Your task to perform on an android device: empty trash in google photos Image 0: 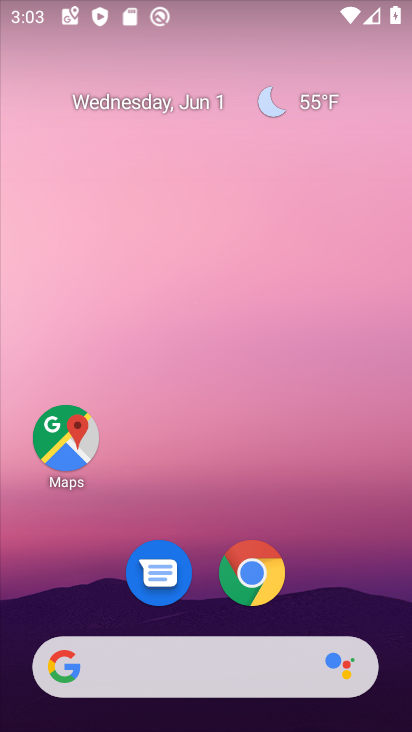
Step 0: drag from (0, 0) to (127, 0)
Your task to perform on an android device: empty trash in google photos Image 1: 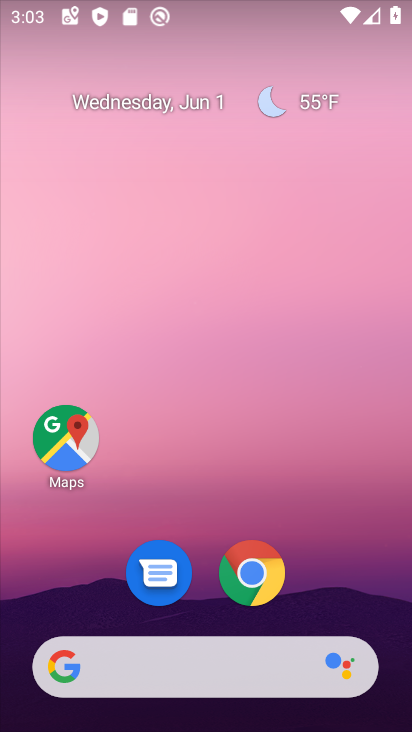
Step 1: drag from (158, 727) to (148, 91)
Your task to perform on an android device: empty trash in google photos Image 2: 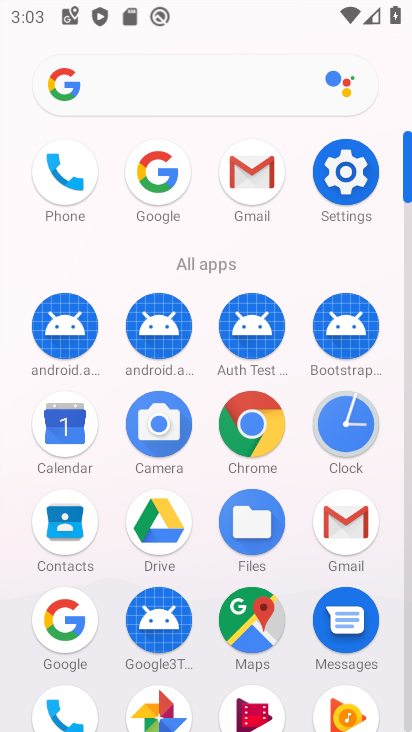
Step 2: click (146, 715)
Your task to perform on an android device: empty trash in google photos Image 3: 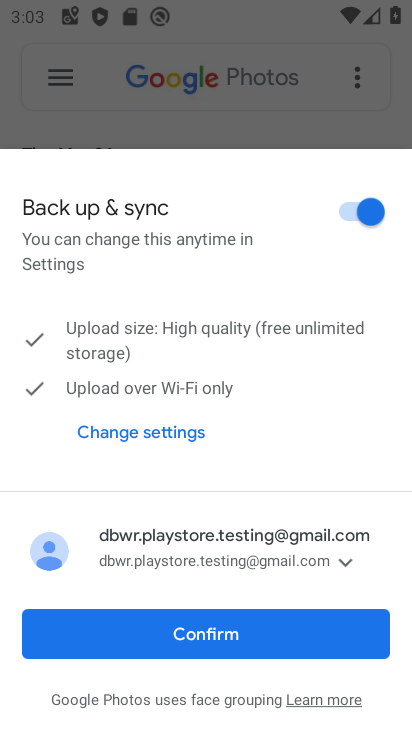
Step 3: click (242, 640)
Your task to perform on an android device: empty trash in google photos Image 4: 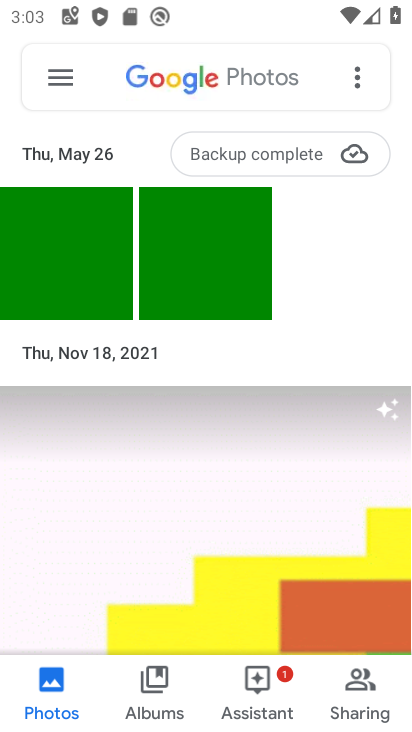
Step 4: click (57, 85)
Your task to perform on an android device: empty trash in google photos Image 5: 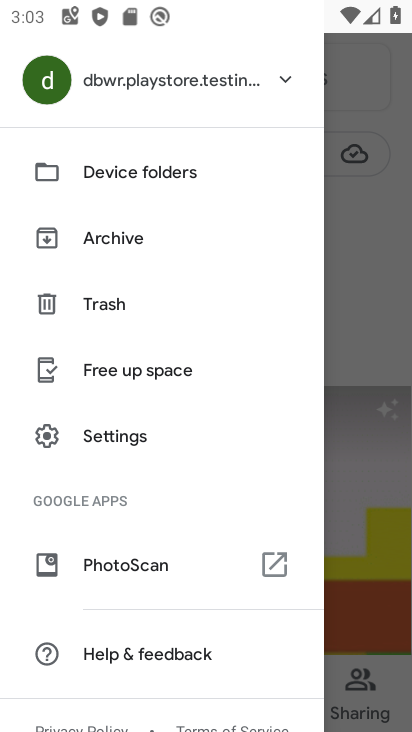
Step 5: click (113, 305)
Your task to perform on an android device: empty trash in google photos Image 6: 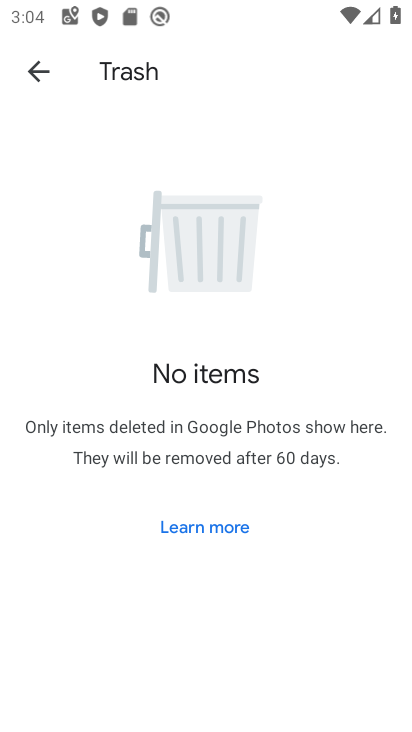
Step 6: task complete